Your task to perform on an android device: Open privacy settings Image 0: 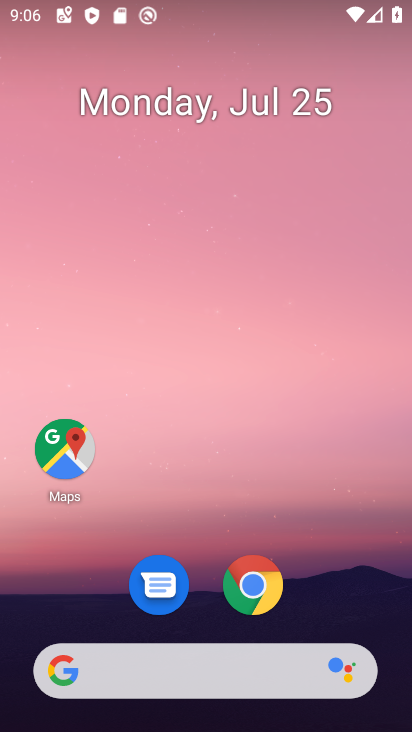
Step 0: press home button
Your task to perform on an android device: Open privacy settings Image 1: 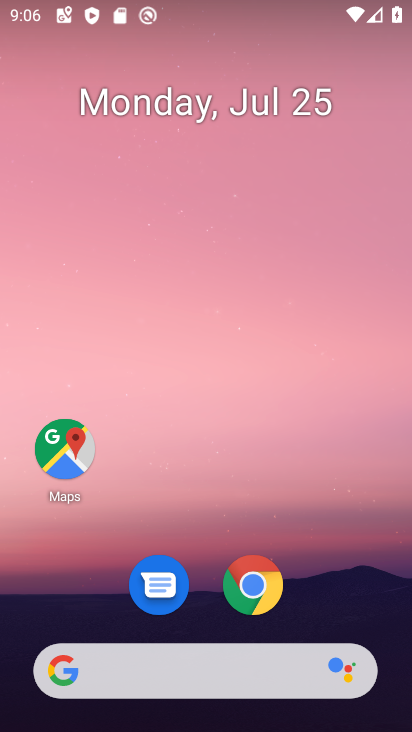
Step 1: drag from (193, 671) to (338, 12)
Your task to perform on an android device: Open privacy settings Image 2: 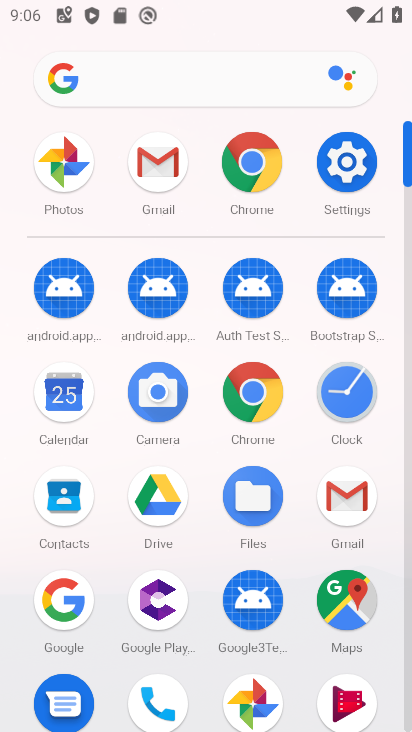
Step 2: click (342, 166)
Your task to perform on an android device: Open privacy settings Image 3: 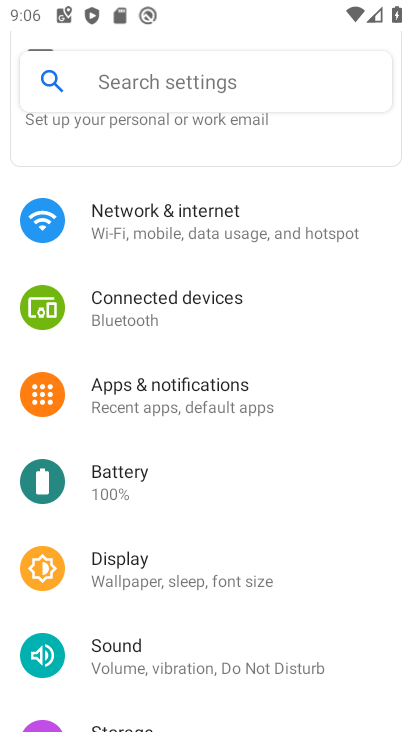
Step 3: drag from (270, 369) to (392, 68)
Your task to perform on an android device: Open privacy settings Image 4: 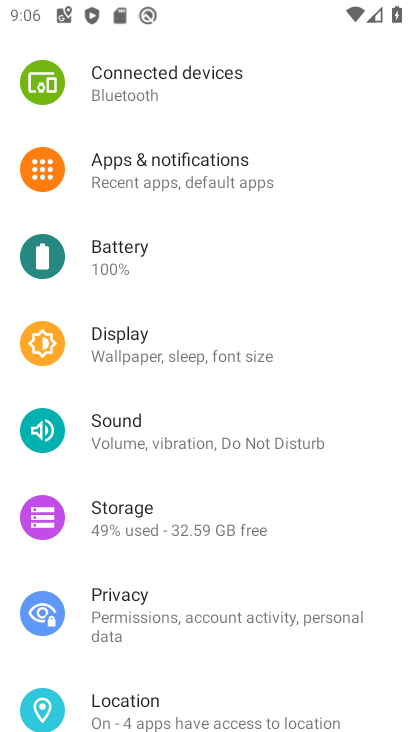
Step 4: click (122, 597)
Your task to perform on an android device: Open privacy settings Image 5: 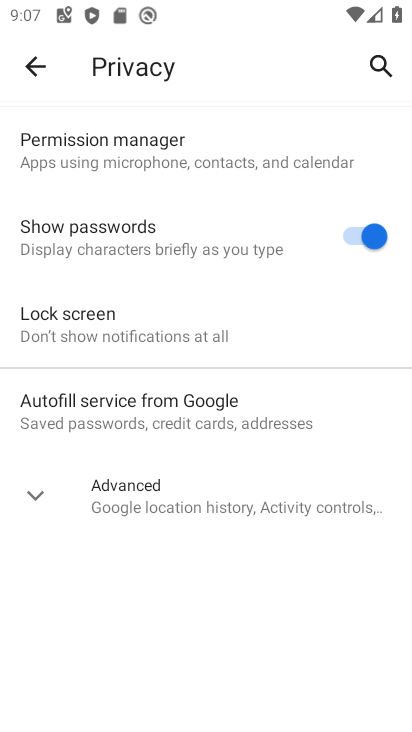
Step 5: task complete